Your task to perform on an android device: change keyboard looks Image 0: 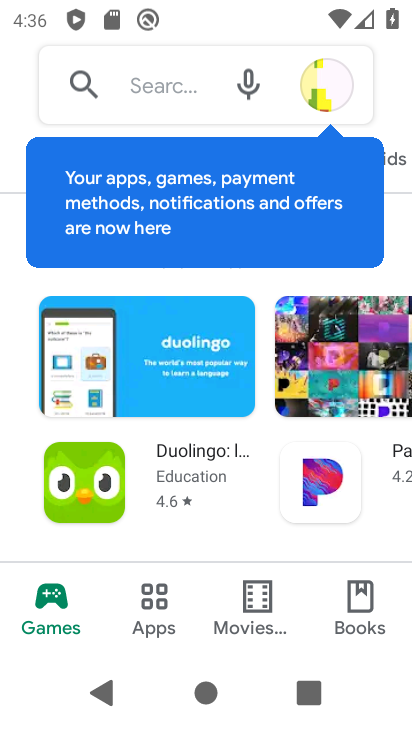
Step 0: press back button
Your task to perform on an android device: change keyboard looks Image 1: 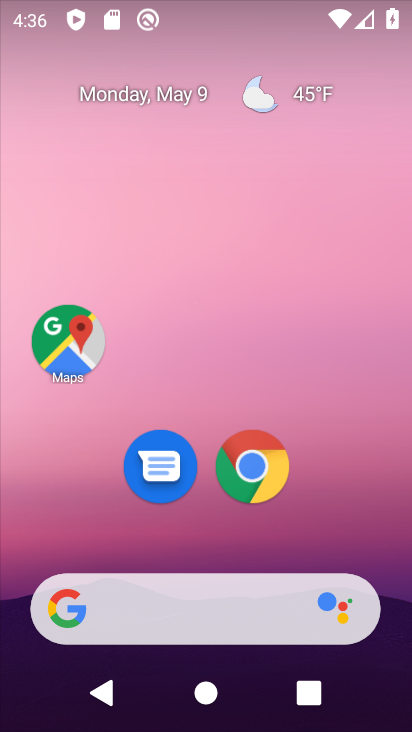
Step 1: drag from (348, 527) to (260, 75)
Your task to perform on an android device: change keyboard looks Image 2: 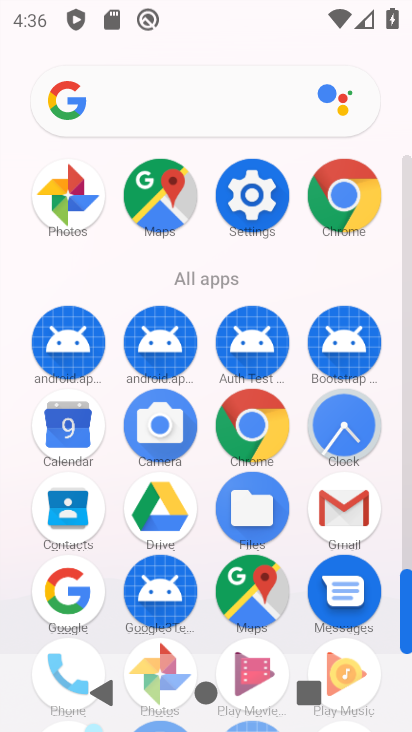
Step 2: click (251, 190)
Your task to perform on an android device: change keyboard looks Image 3: 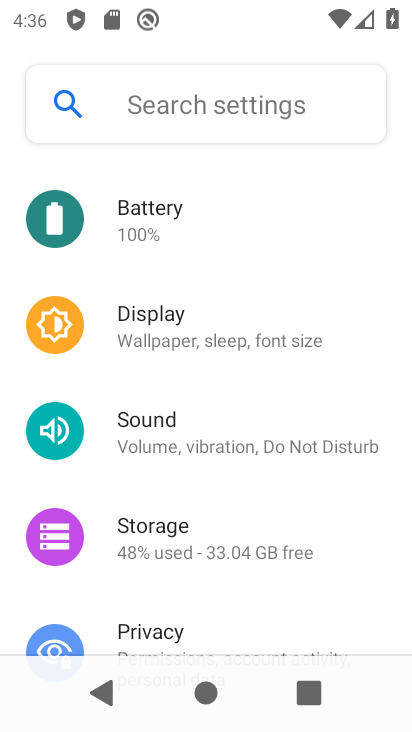
Step 3: drag from (254, 528) to (263, 100)
Your task to perform on an android device: change keyboard looks Image 4: 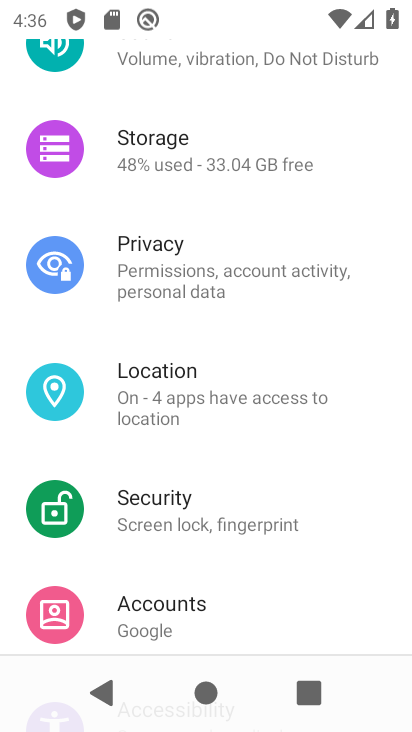
Step 4: drag from (243, 518) to (243, 53)
Your task to perform on an android device: change keyboard looks Image 5: 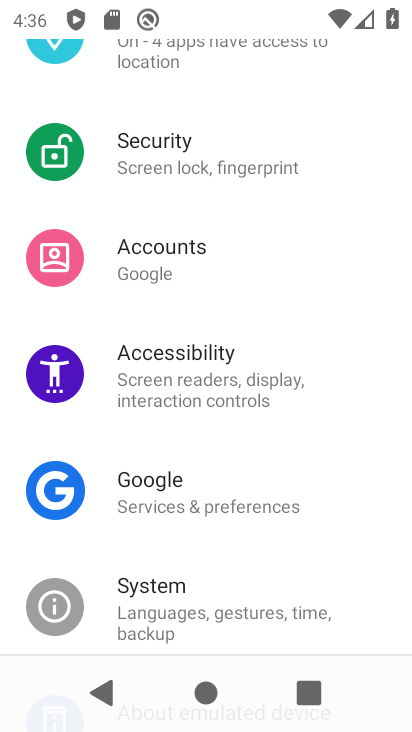
Step 5: drag from (258, 477) to (255, 66)
Your task to perform on an android device: change keyboard looks Image 6: 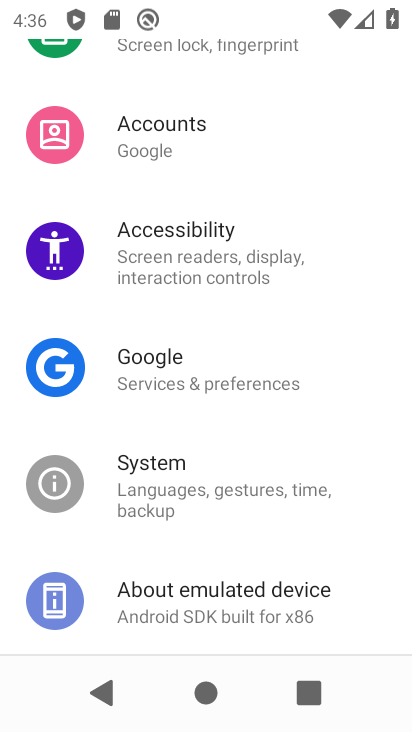
Step 6: drag from (249, 619) to (274, 194)
Your task to perform on an android device: change keyboard looks Image 7: 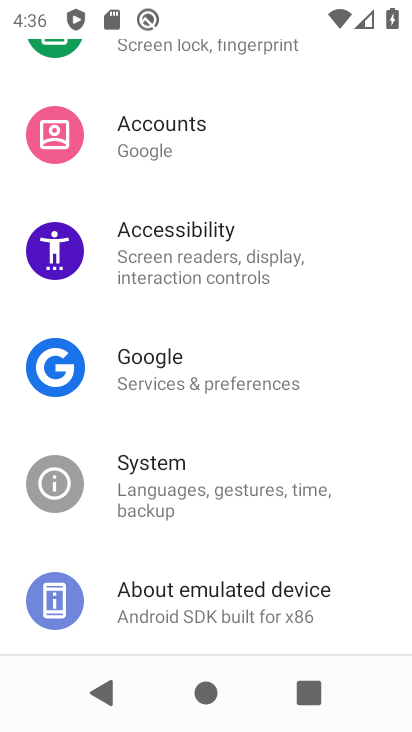
Step 7: click (205, 606)
Your task to perform on an android device: change keyboard looks Image 8: 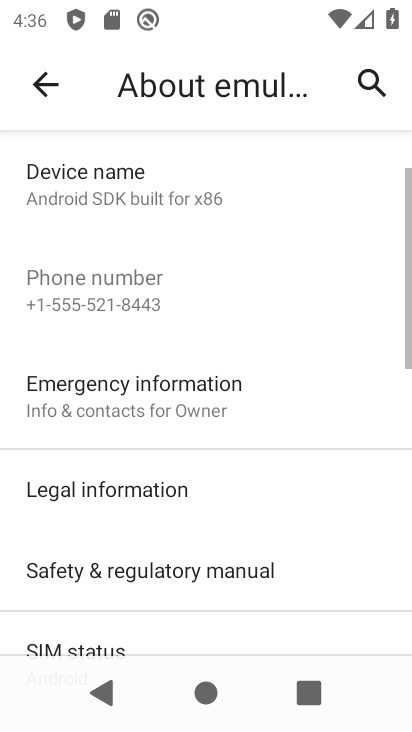
Step 8: drag from (251, 542) to (268, 154)
Your task to perform on an android device: change keyboard looks Image 9: 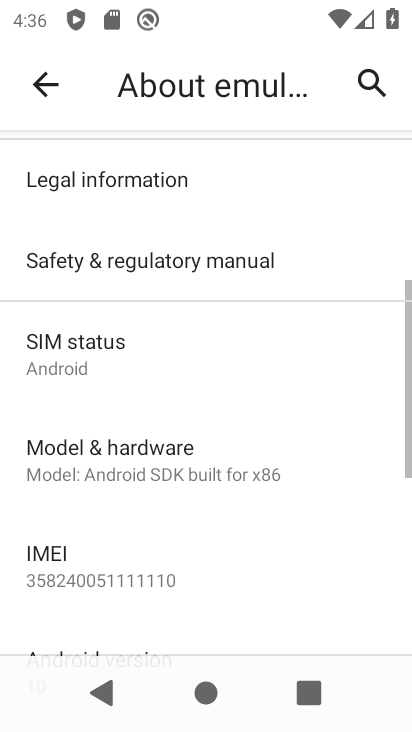
Step 9: drag from (225, 500) to (258, 119)
Your task to perform on an android device: change keyboard looks Image 10: 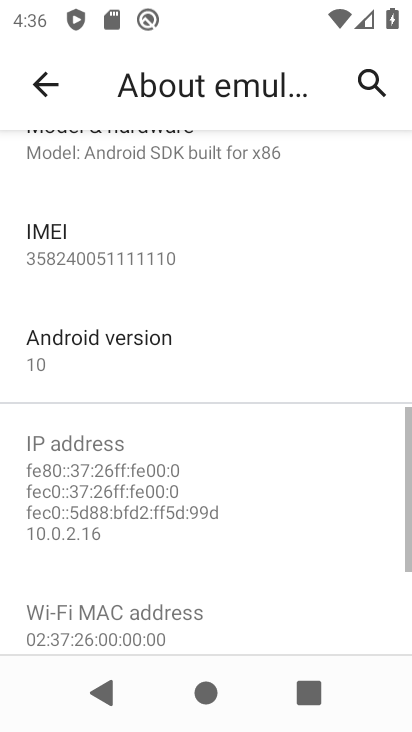
Step 10: drag from (209, 510) to (238, 146)
Your task to perform on an android device: change keyboard looks Image 11: 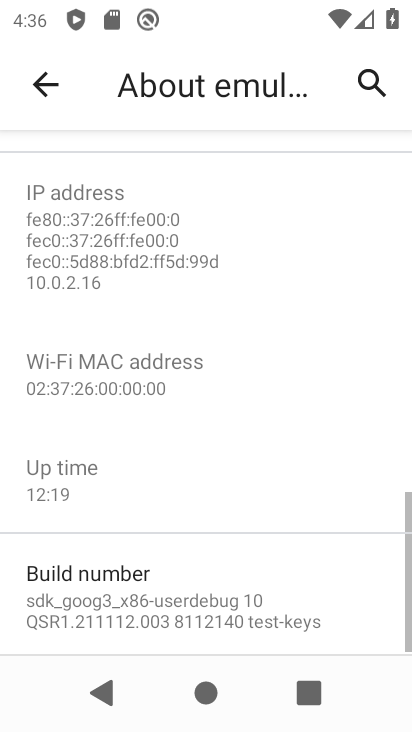
Step 11: drag from (243, 272) to (258, 646)
Your task to perform on an android device: change keyboard looks Image 12: 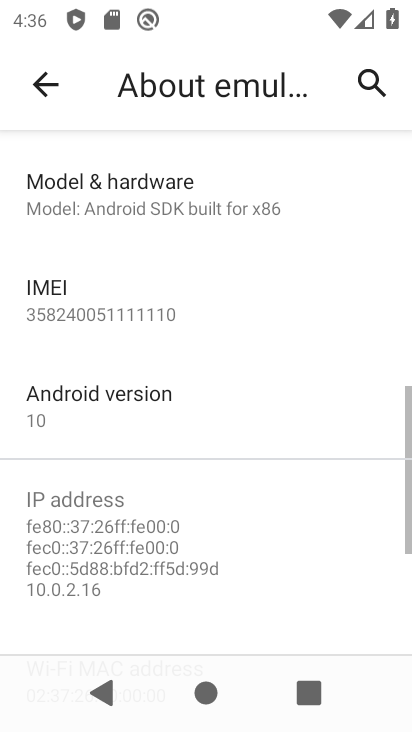
Step 12: drag from (239, 232) to (239, 616)
Your task to perform on an android device: change keyboard looks Image 13: 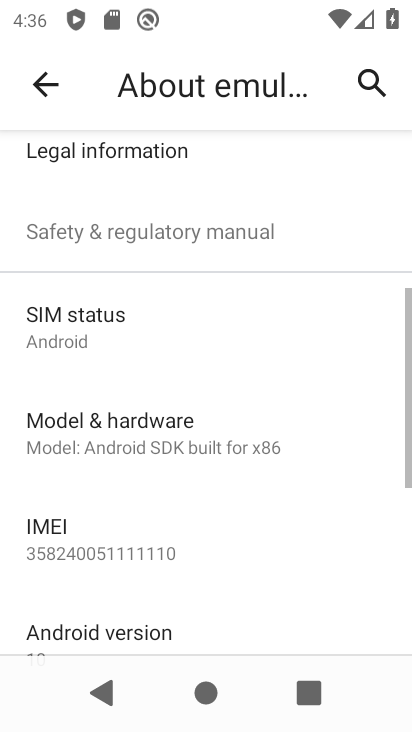
Step 13: drag from (244, 445) to (243, 638)
Your task to perform on an android device: change keyboard looks Image 14: 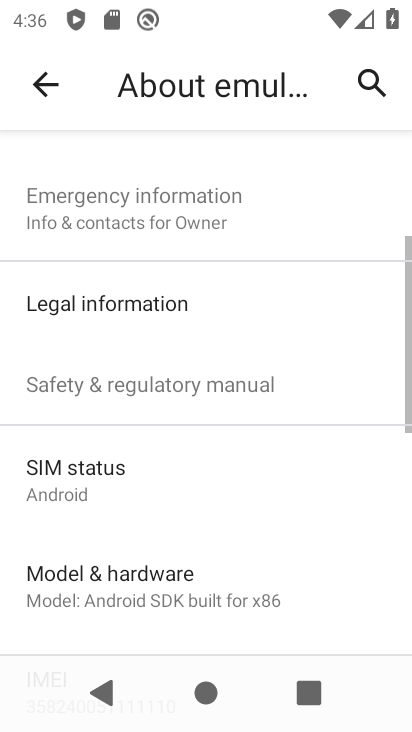
Step 14: drag from (268, 283) to (257, 590)
Your task to perform on an android device: change keyboard looks Image 15: 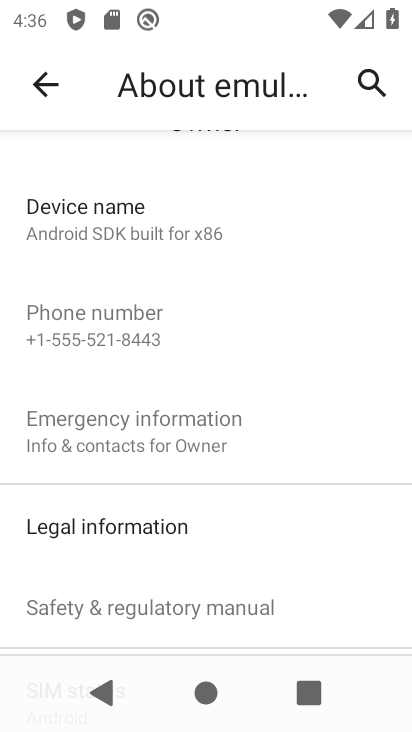
Step 15: drag from (270, 202) to (272, 525)
Your task to perform on an android device: change keyboard looks Image 16: 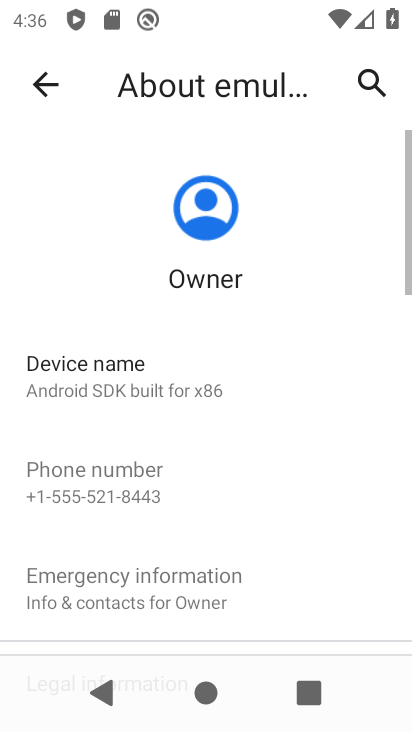
Step 16: click (36, 81)
Your task to perform on an android device: change keyboard looks Image 17: 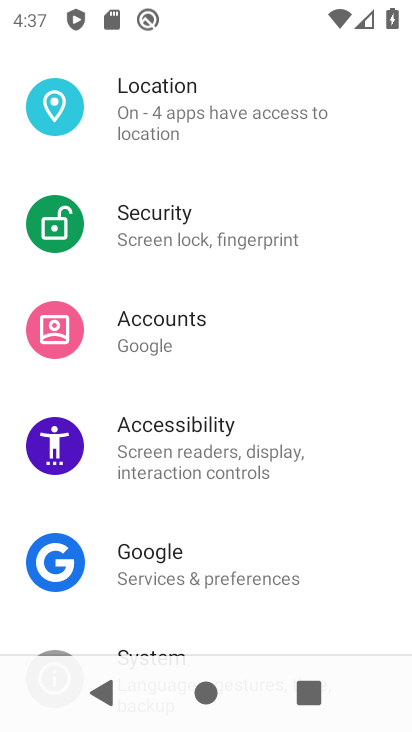
Step 17: drag from (185, 589) to (242, 281)
Your task to perform on an android device: change keyboard looks Image 18: 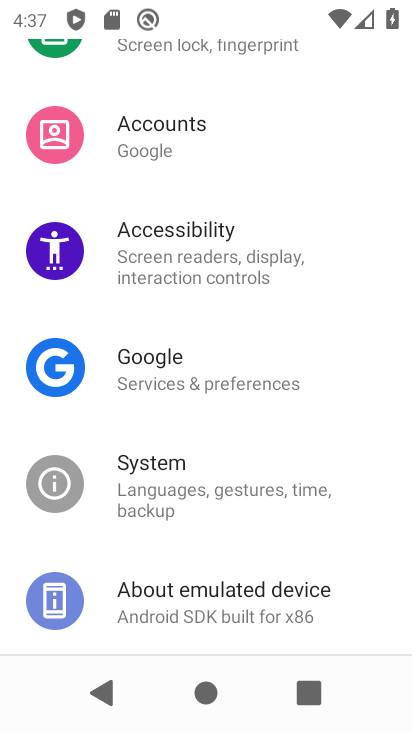
Step 18: click (162, 469)
Your task to perform on an android device: change keyboard looks Image 19: 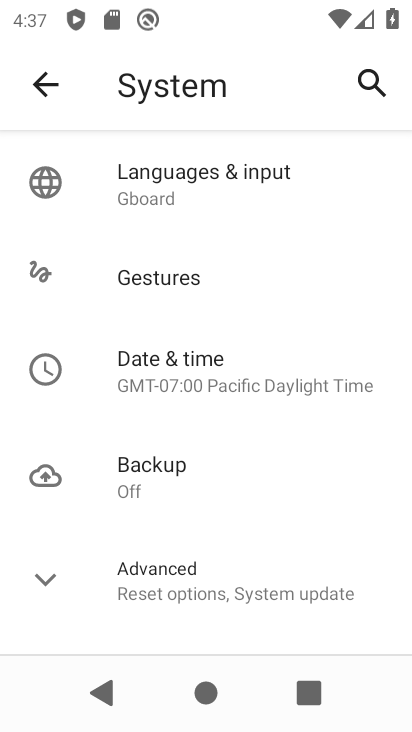
Step 19: click (173, 205)
Your task to perform on an android device: change keyboard looks Image 20: 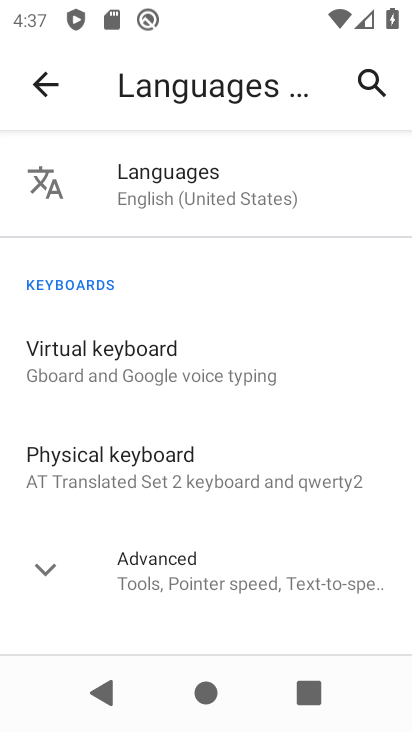
Step 20: click (141, 357)
Your task to perform on an android device: change keyboard looks Image 21: 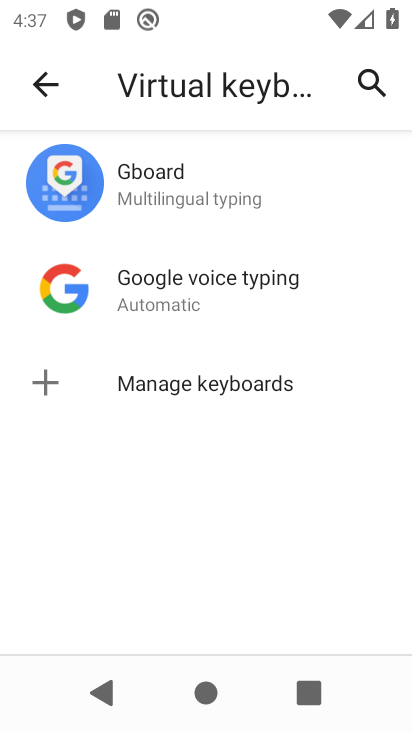
Step 21: click (188, 202)
Your task to perform on an android device: change keyboard looks Image 22: 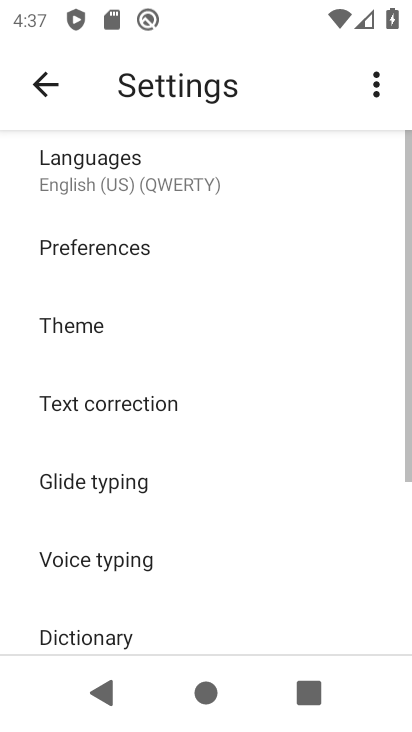
Step 22: click (121, 324)
Your task to perform on an android device: change keyboard looks Image 23: 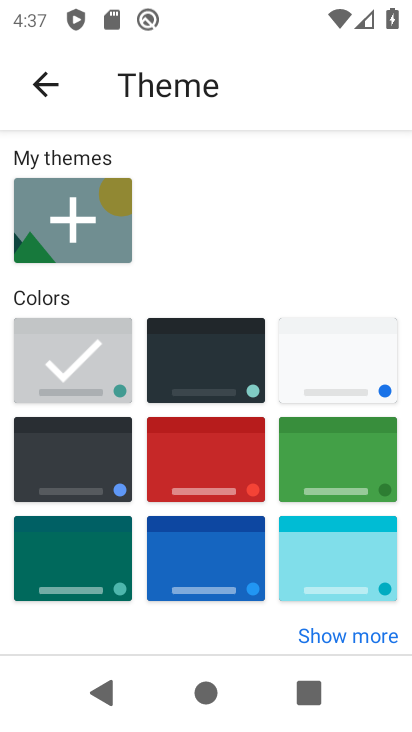
Step 23: click (239, 454)
Your task to perform on an android device: change keyboard looks Image 24: 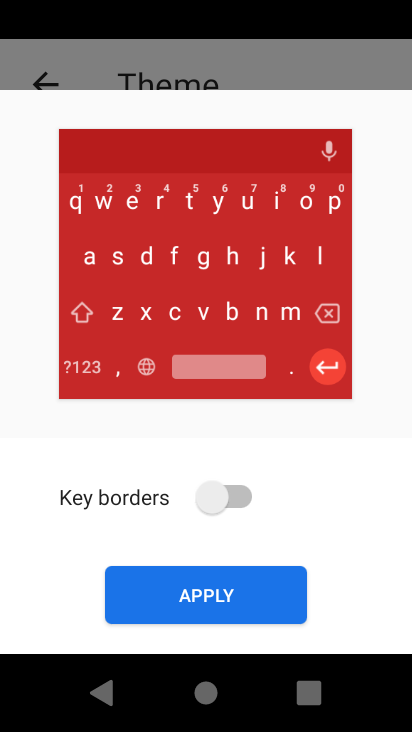
Step 24: click (244, 593)
Your task to perform on an android device: change keyboard looks Image 25: 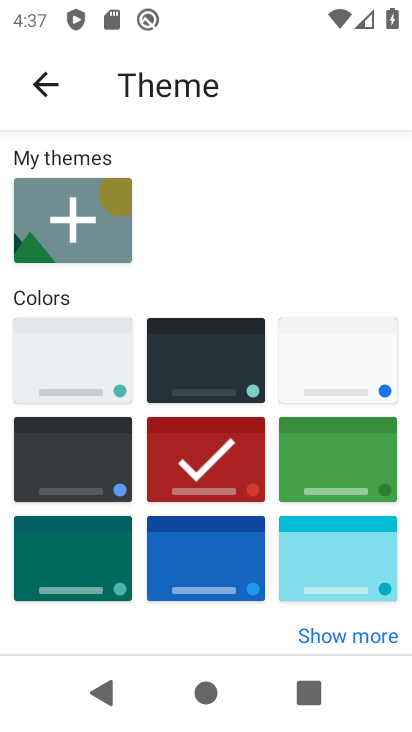
Step 25: task complete